Your task to perform on an android device: turn pop-ups on in chrome Image 0: 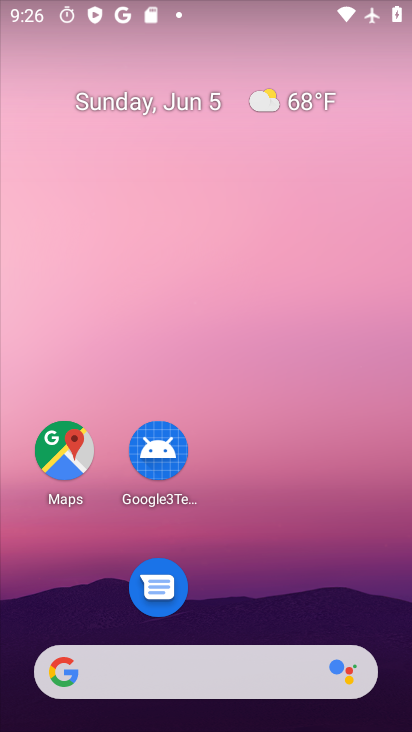
Step 0: drag from (292, 620) to (169, 345)
Your task to perform on an android device: turn pop-ups on in chrome Image 1: 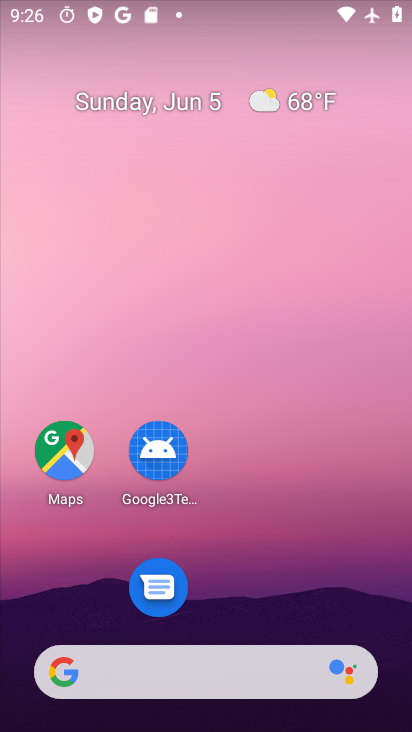
Step 1: drag from (265, 537) to (124, 156)
Your task to perform on an android device: turn pop-ups on in chrome Image 2: 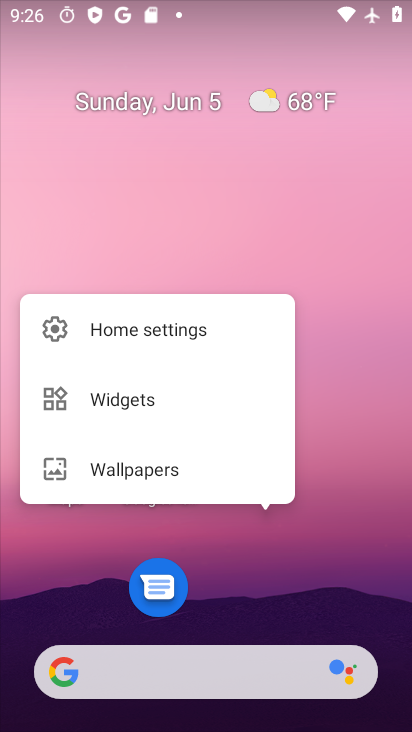
Step 2: click (341, 210)
Your task to perform on an android device: turn pop-ups on in chrome Image 3: 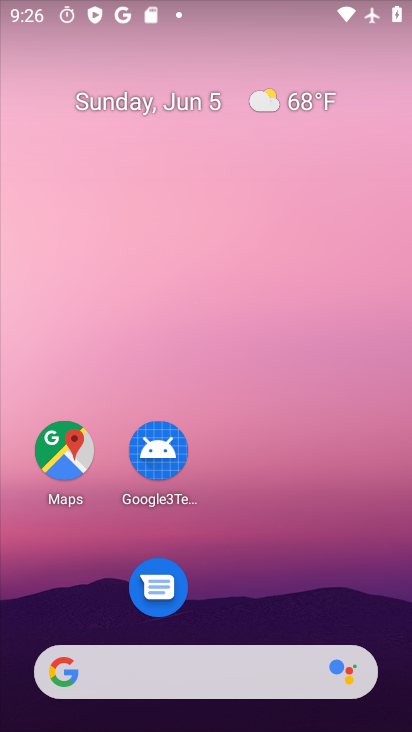
Step 3: drag from (341, 210) to (405, 85)
Your task to perform on an android device: turn pop-ups on in chrome Image 4: 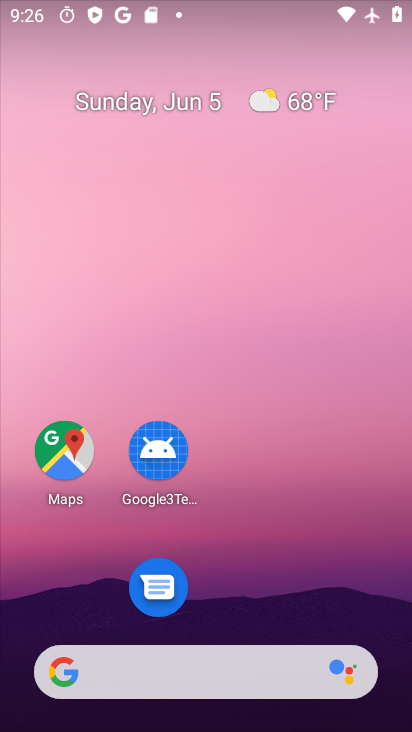
Step 4: drag from (264, 586) to (252, 209)
Your task to perform on an android device: turn pop-ups on in chrome Image 5: 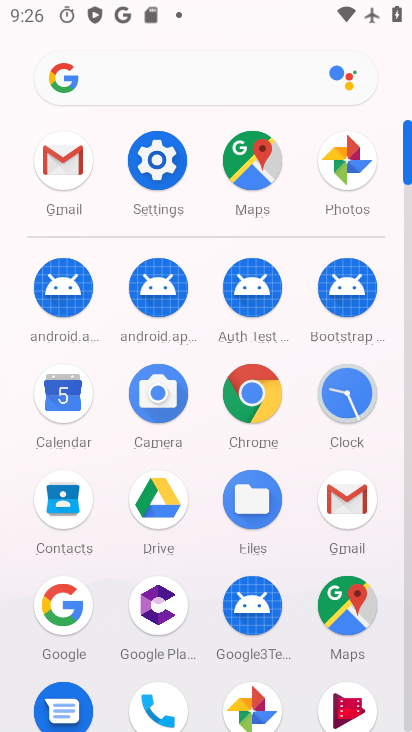
Step 5: click (252, 271)
Your task to perform on an android device: turn pop-ups on in chrome Image 6: 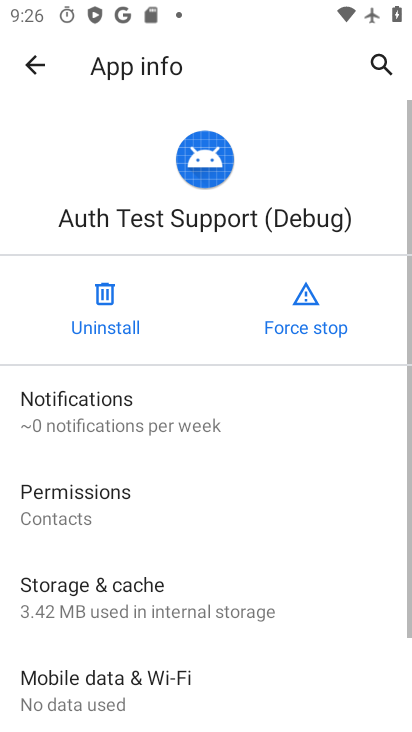
Step 6: click (34, 67)
Your task to perform on an android device: turn pop-ups on in chrome Image 7: 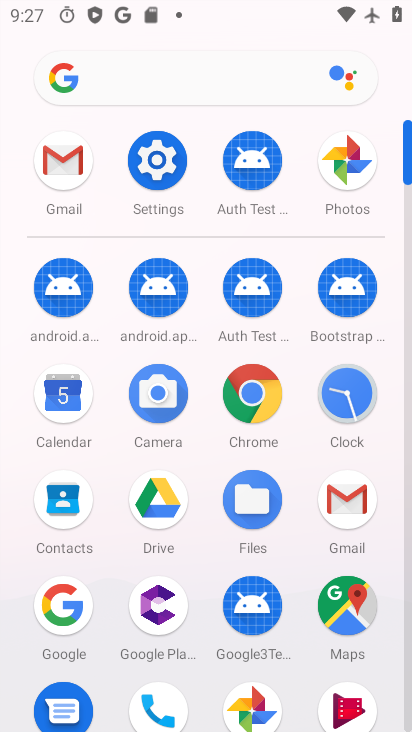
Step 7: click (265, 403)
Your task to perform on an android device: turn pop-ups on in chrome Image 8: 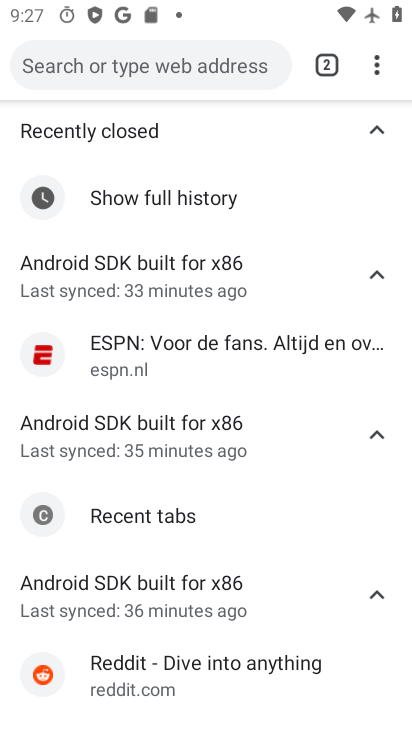
Step 8: click (377, 54)
Your task to perform on an android device: turn pop-ups on in chrome Image 9: 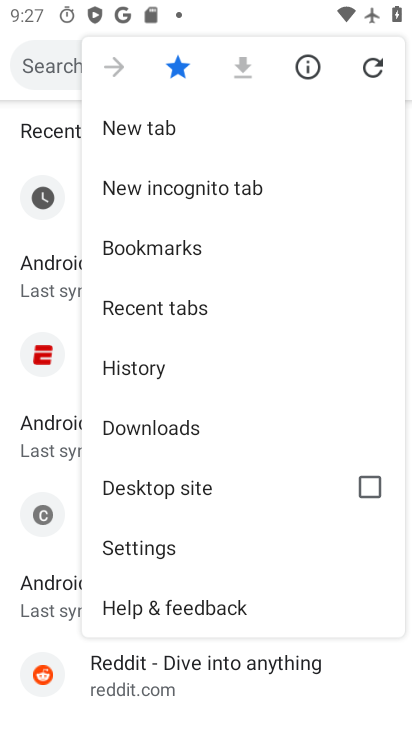
Step 9: click (174, 540)
Your task to perform on an android device: turn pop-ups on in chrome Image 10: 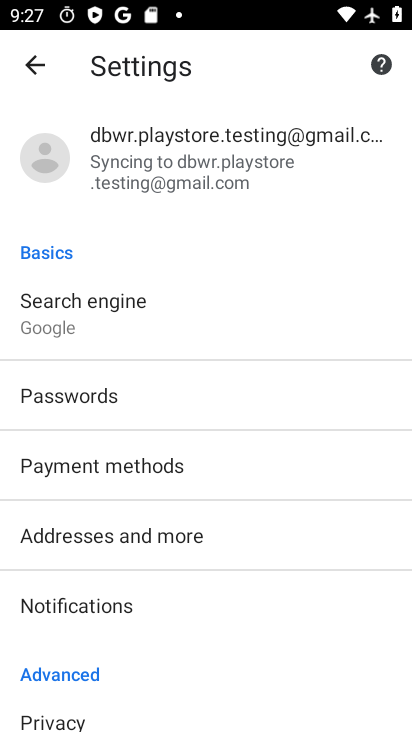
Step 10: drag from (143, 659) to (140, 239)
Your task to perform on an android device: turn pop-ups on in chrome Image 11: 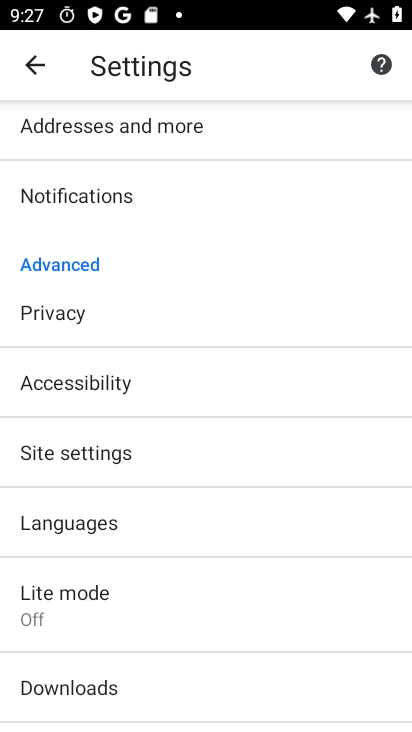
Step 11: drag from (148, 654) to (144, 362)
Your task to perform on an android device: turn pop-ups on in chrome Image 12: 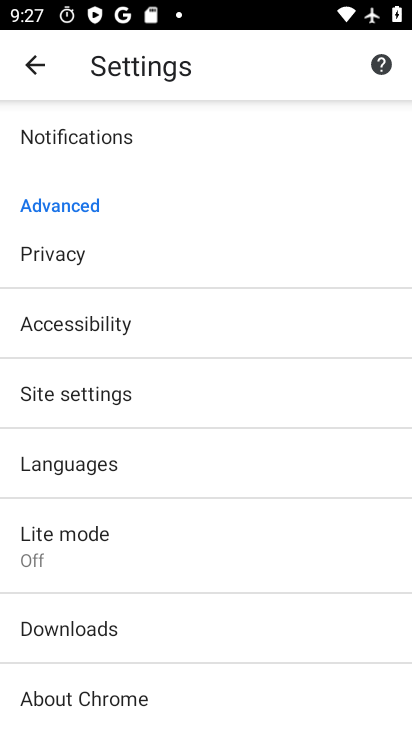
Step 12: click (88, 384)
Your task to perform on an android device: turn pop-ups on in chrome Image 13: 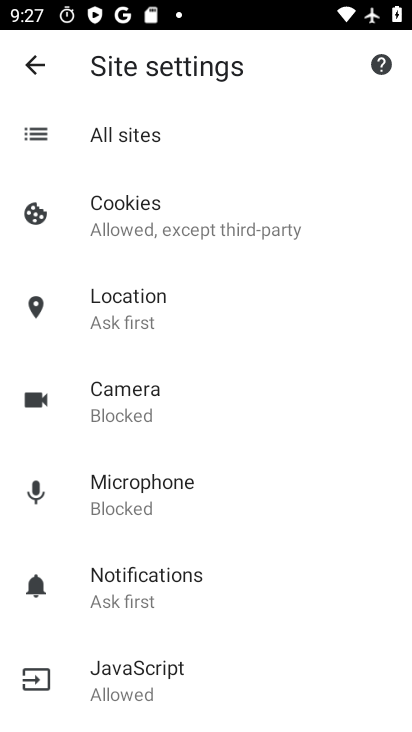
Step 13: drag from (178, 704) to (185, 294)
Your task to perform on an android device: turn pop-ups on in chrome Image 14: 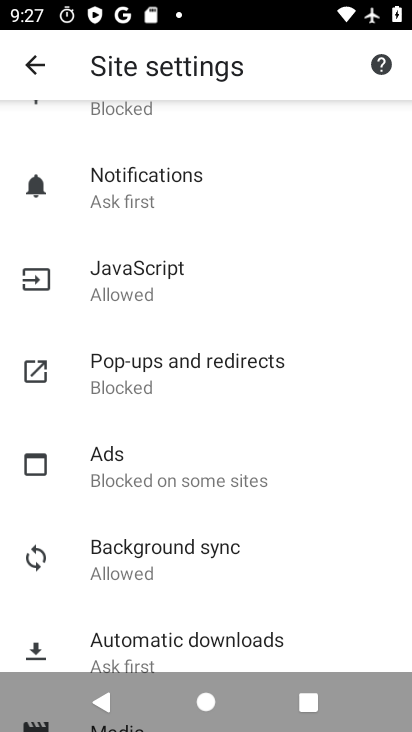
Step 14: click (166, 374)
Your task to perform on an android device: turn pop-ups on in chrome Image 15: 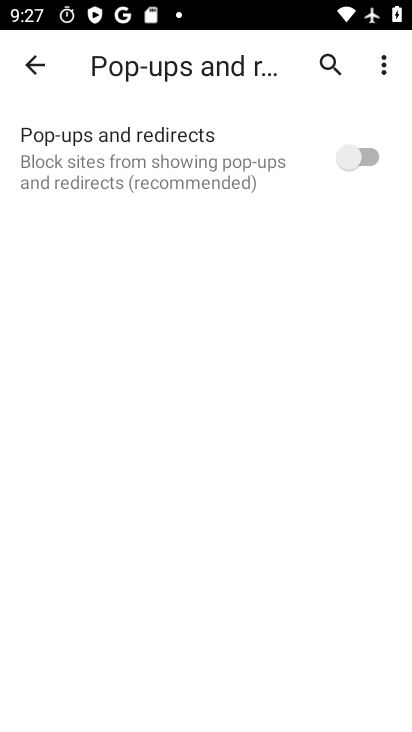
Step 15: click (354, 160)
Your task to perform on an android device: turn pop-ups on in chrome Image 16: 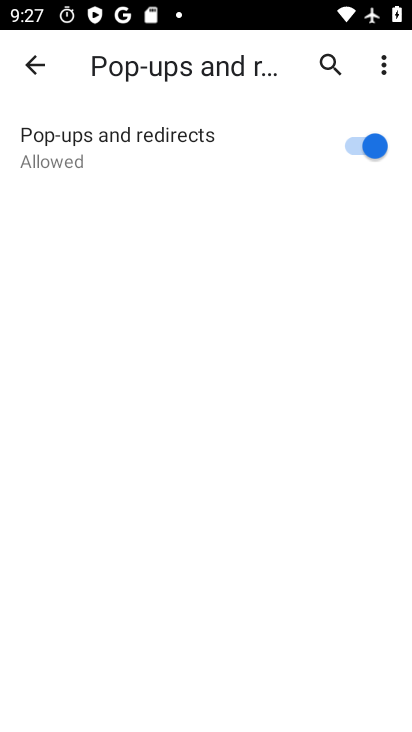
Step 16: task complete